Your task to perform on an android device: Go to Google Image 0: 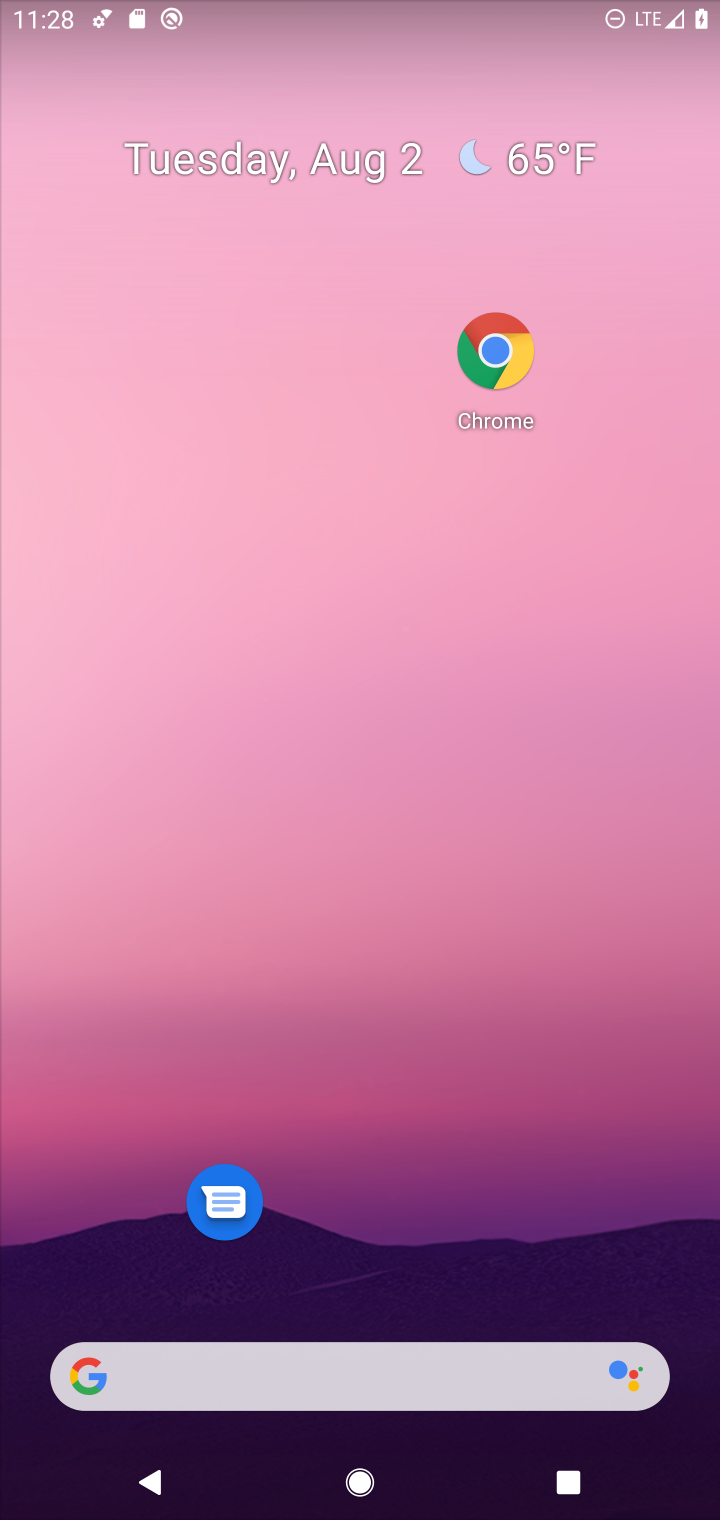
Step 0: drag from (407, 1120) to (427, 61)
Your task to perform on an android device: Go to Google Image 1: 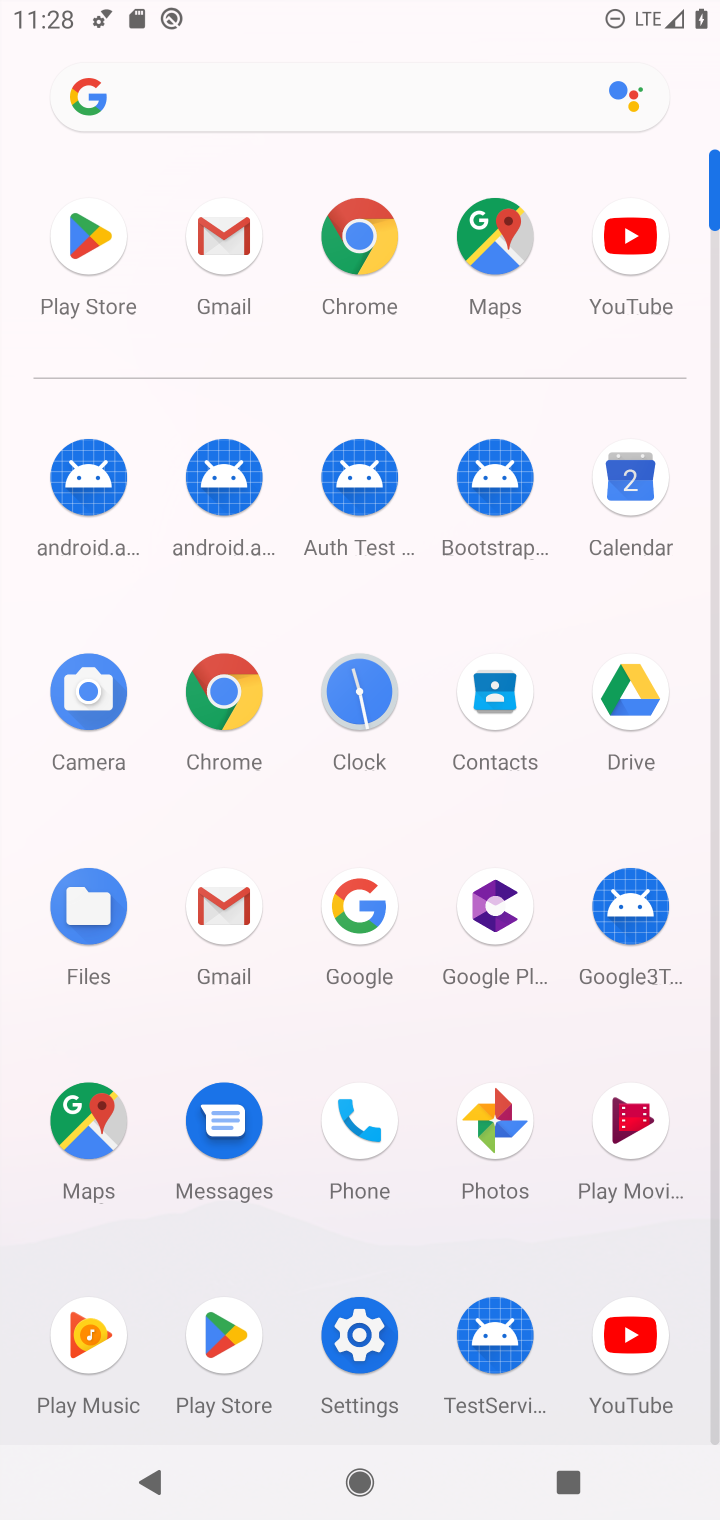
Step 1: click (344, 904)
Your task to perform on an android device: Go to Google Image 2: 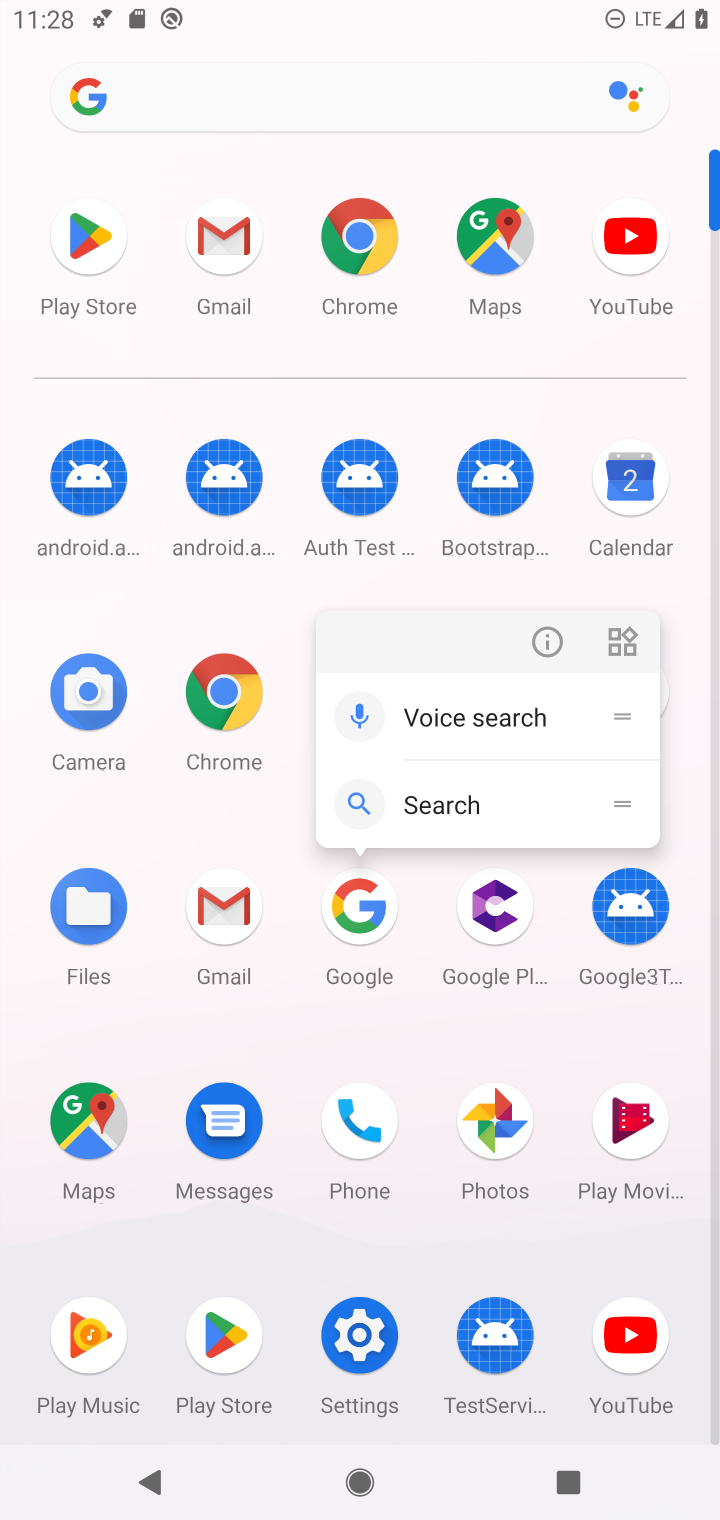
Step 2: click (348, 906)
Your task to perform on an android device: Go to Google Image 3: 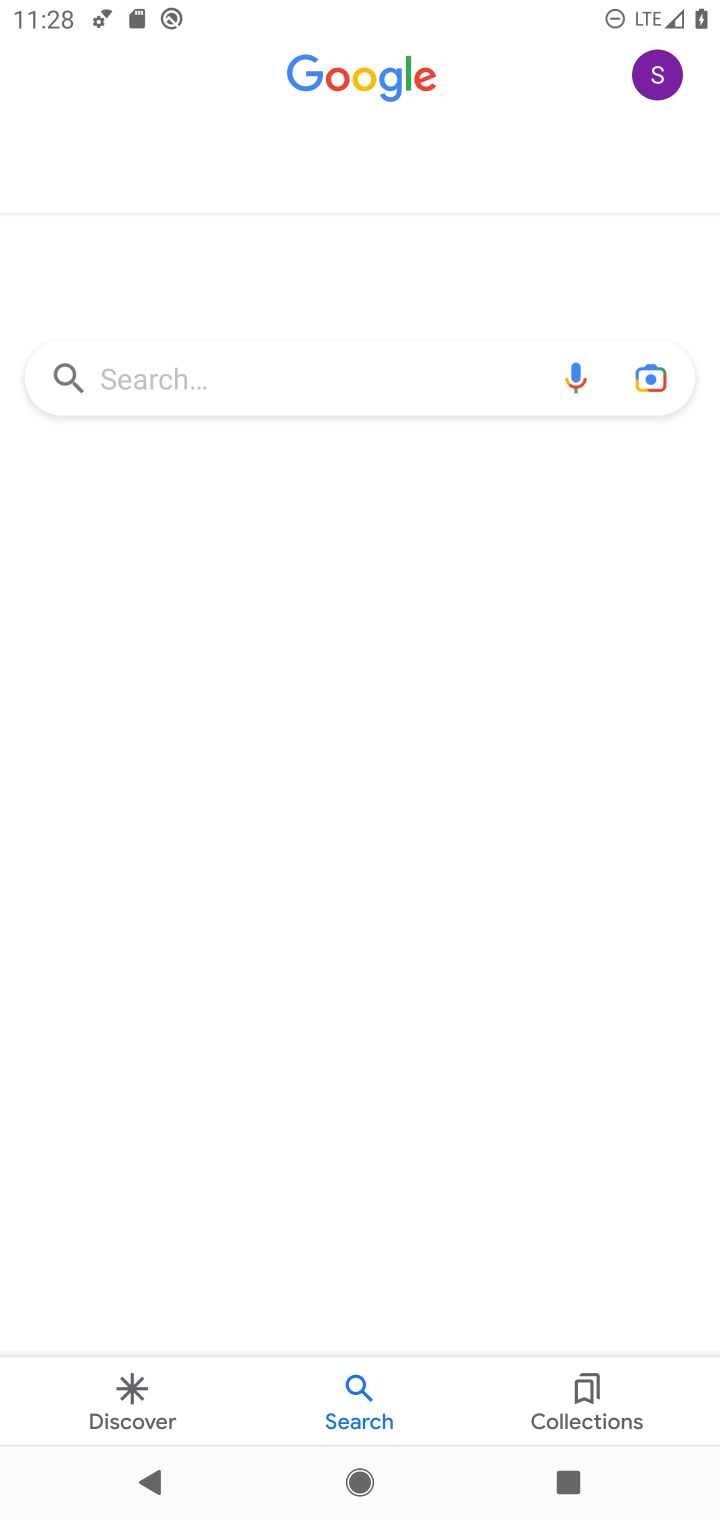
Step 3: task complete